Your task to perform on an android device: turn smart compose on in the gmail app Image 0: 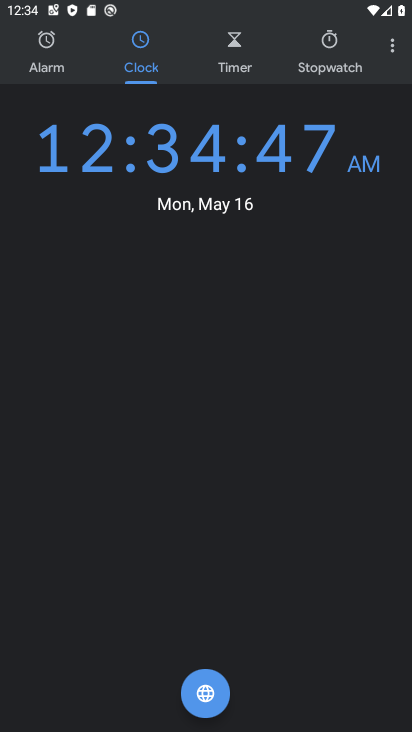
Step 0: press home button
Your task to perform on an android device: turn smart compose on in the gmail app Image 1: 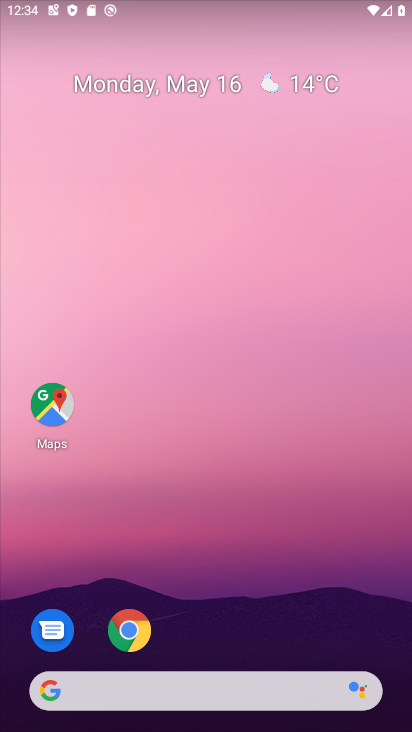
Step 1: drag from (218, 591) to (223, 113)
Your task to perform on an android device: turn smart compose on in the gmail app Image 2: 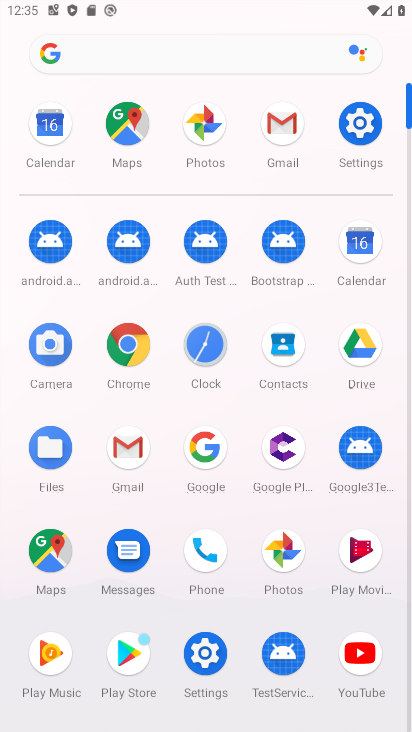
Step 2: click (126, 455)
Your task to perform on an android device: turn smart compose on in the gmail app Image 3: 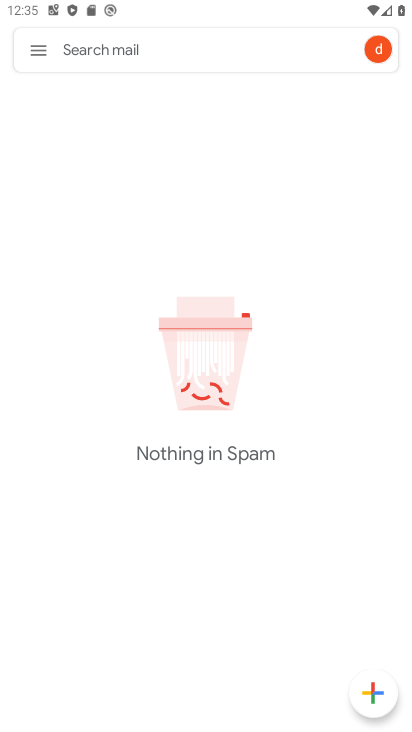
Step 3: click (42, 58)
Your task to perform on an android device: turn smart compose on in the gmail app Image 4: 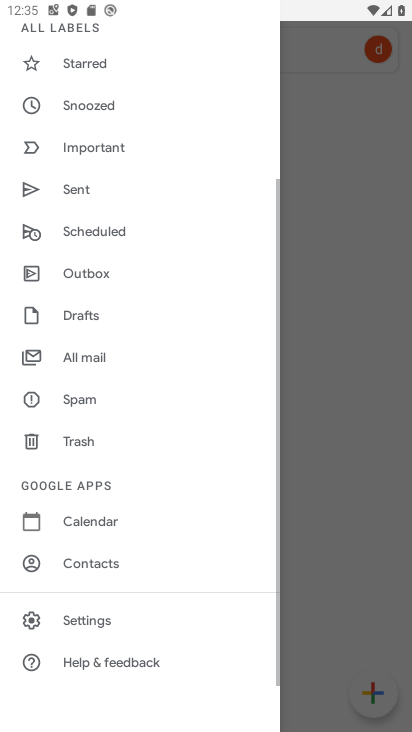
Step 4: click (98, 605)
Your task to perform on an android device: turn smart compose on in the gmail app Image 5: 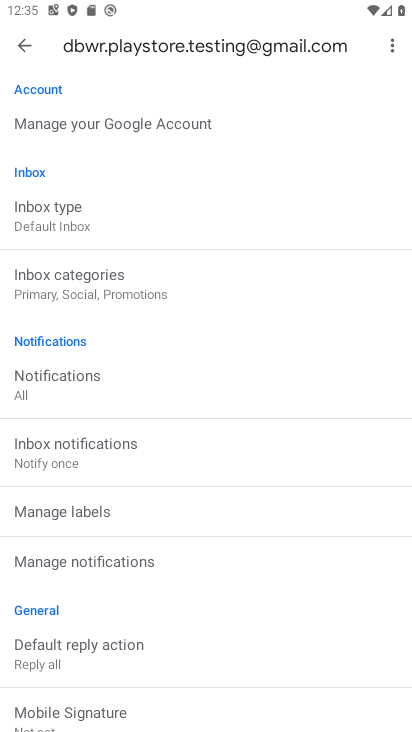
Step 5: task complete